Your task to perform on an android device: Show me popular videos on Youtube Image 0: 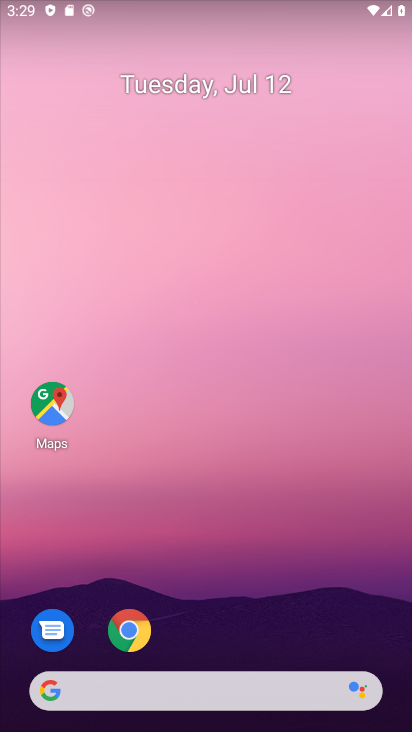
Step 0: drag from (238, 597) to (263, 208)
Your task to perform on an android device: Show me popular videos on Youtube Image 1: 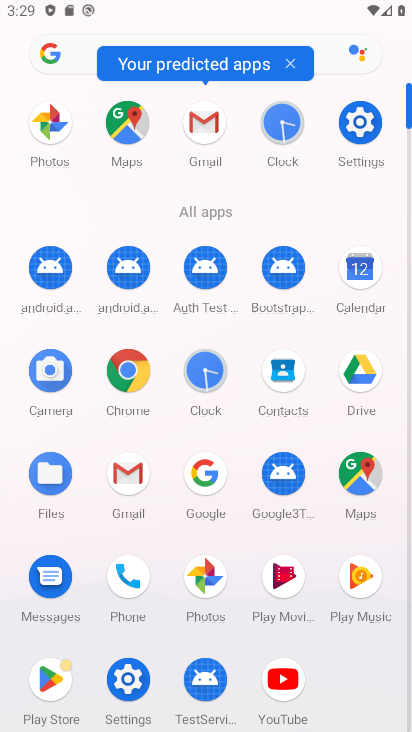
Step 1: click (285, 681)
Your task to perform on an android device: Show me popular videos on Youtube Image 2: 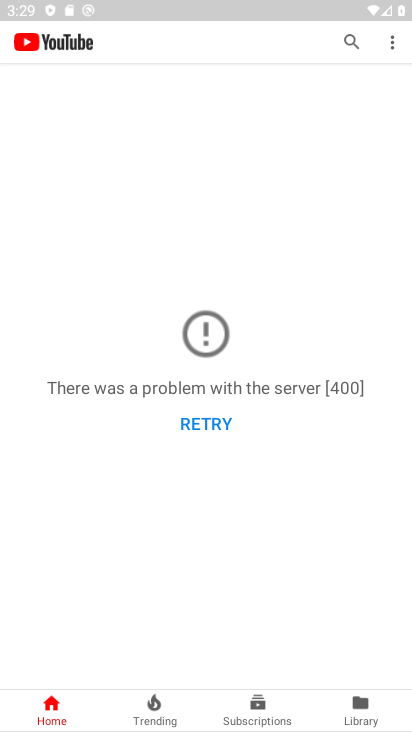
Step 2: click (139, 718)
Your task to perform on an android device: Show me popular videos on Youtube Image 3: 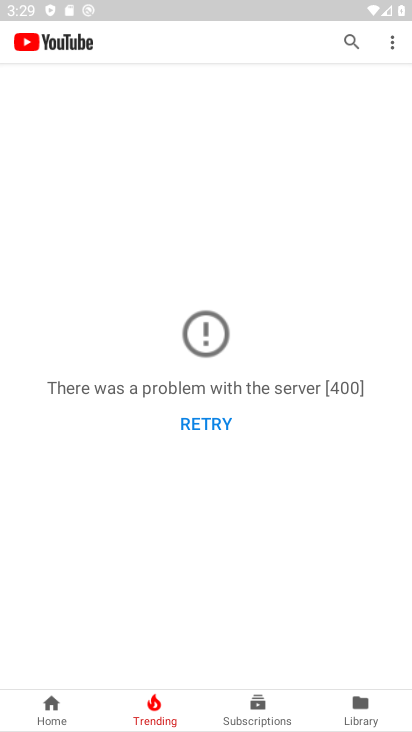
Step 3: click (197, 429)
Your task to perform on an android device: Show me popular videos on Youtube Image 4: 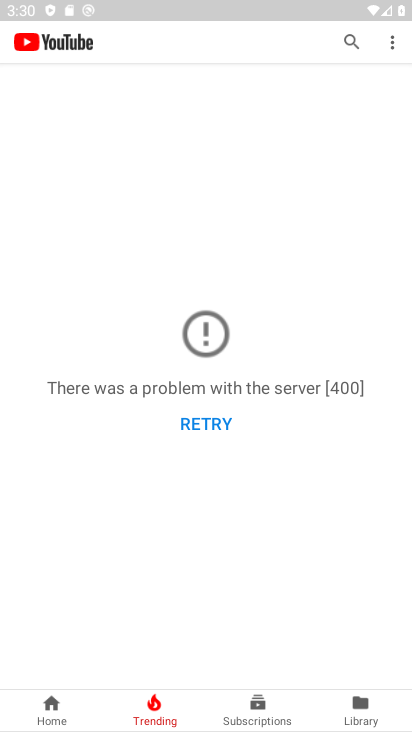
Step 4: click (197, 429)
Your task to perform on an android device: Show me popular videos on Youtube Image 5: 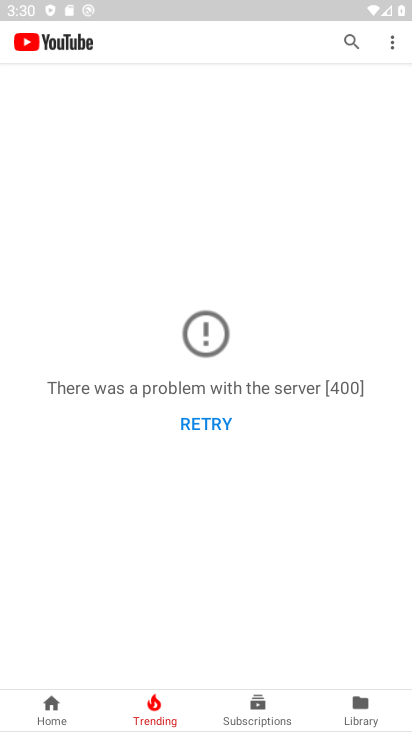
Step 5: task complete